Your task to perform on an android device: Open Wikipedia Image 0: 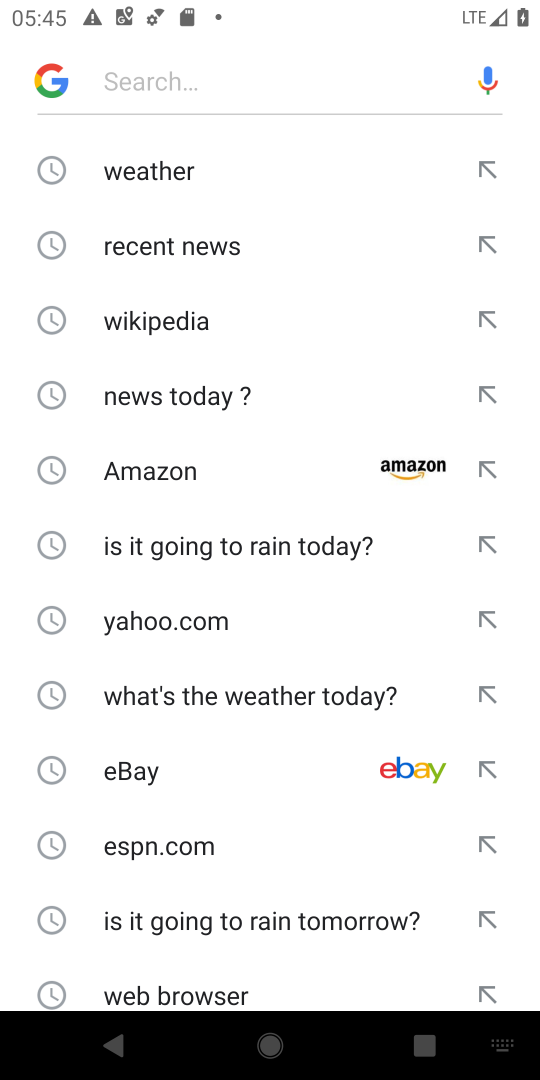
Step 0: press home button
Your task to perform on an android device: Open Wikipedia Image 1: 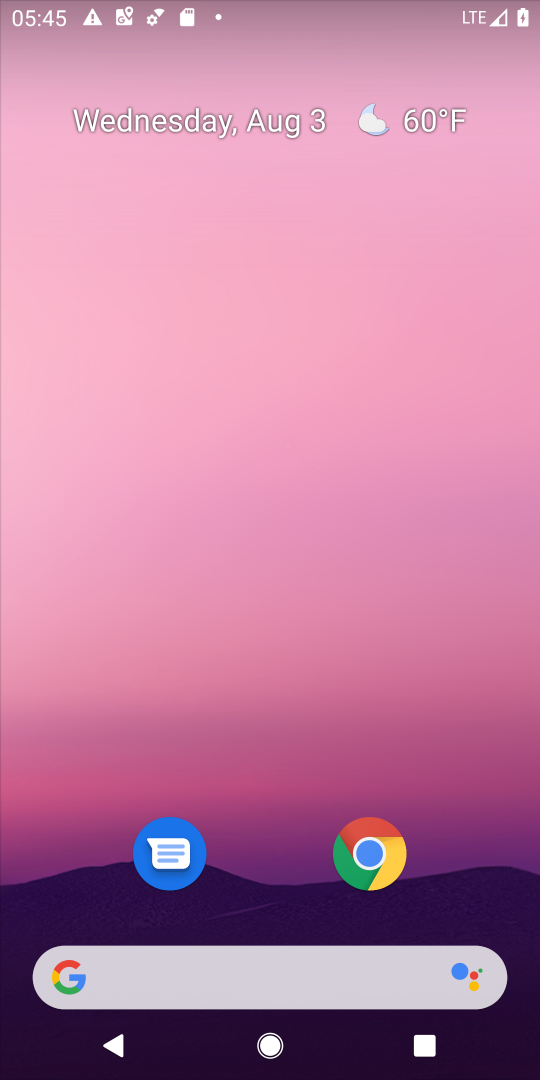
Step 1: click (368, 876)
Your task to perform on an android device: Open Wikipedia Image 2: 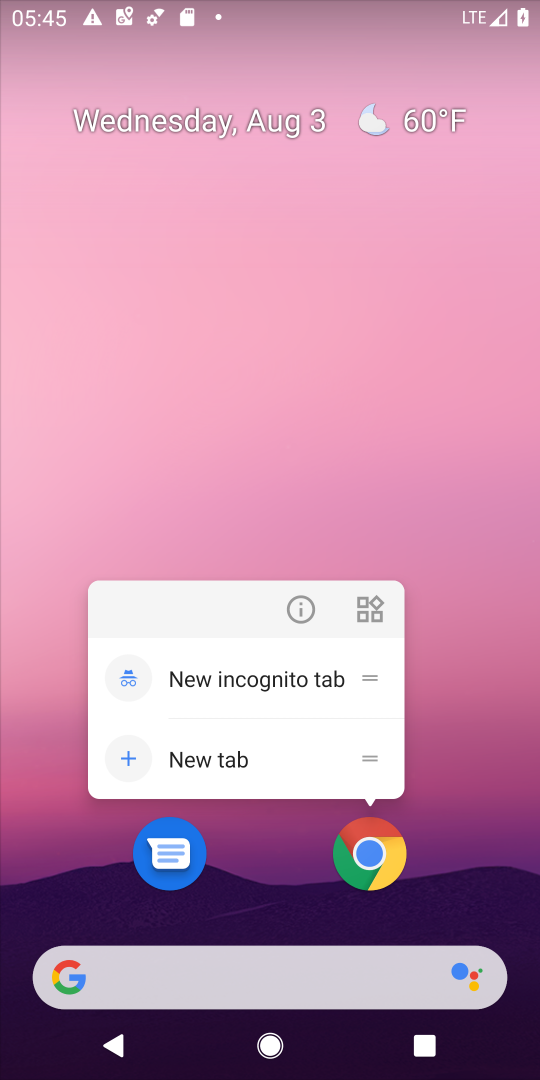
Step 2: click (363, 851)
Your task to perform on an android device: Open Wikipedia Image 3: 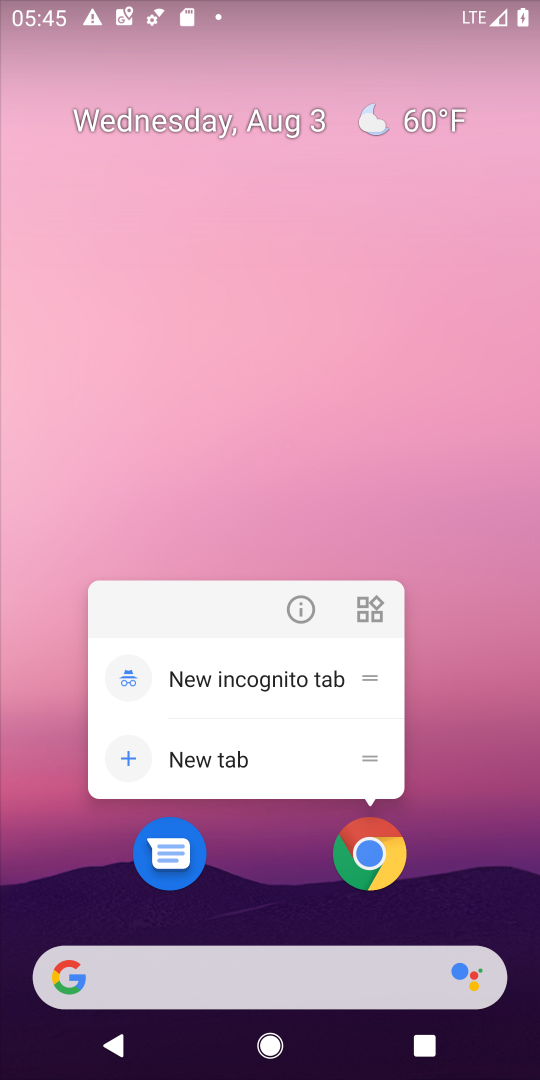
Step 3: click (362, 859)
Your task to perform on an android device: Open Wikipedia Image 4: 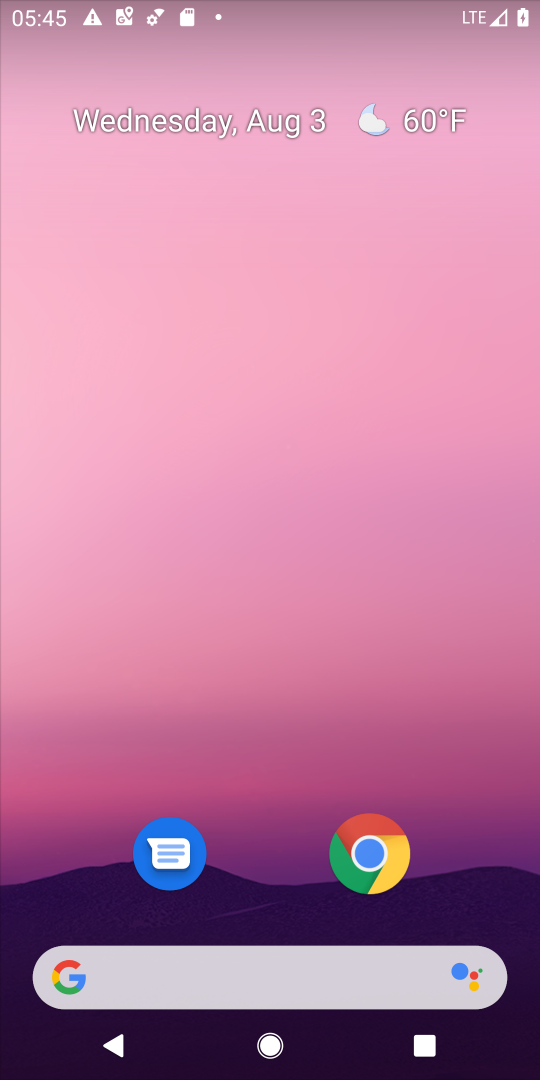
Step 4: click (362, 863)
Your task to perform on an android device: Open Wikipedia Image 5: 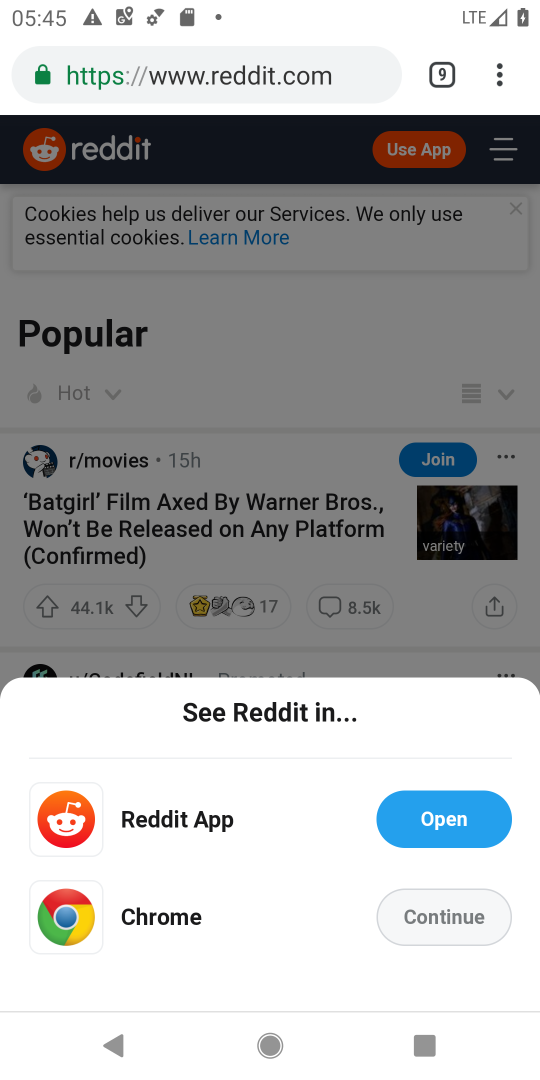
Step 5: click (500, 80)
Your task to perform on an android device: Open Wikipedia Image 6: 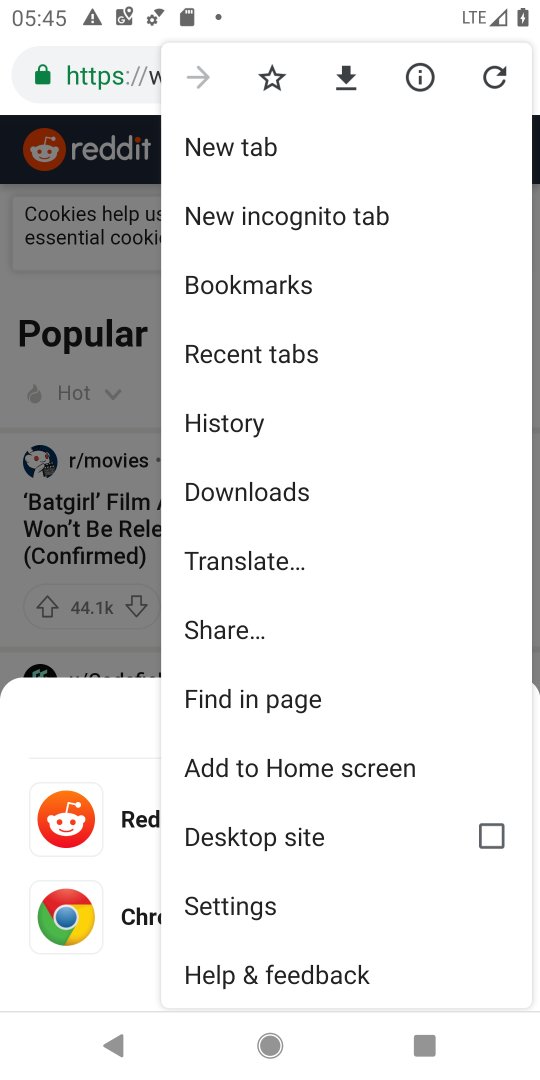
Step 6: click (234, 140)
Your task to perform on an android device: Open Wikipedia Image 7: 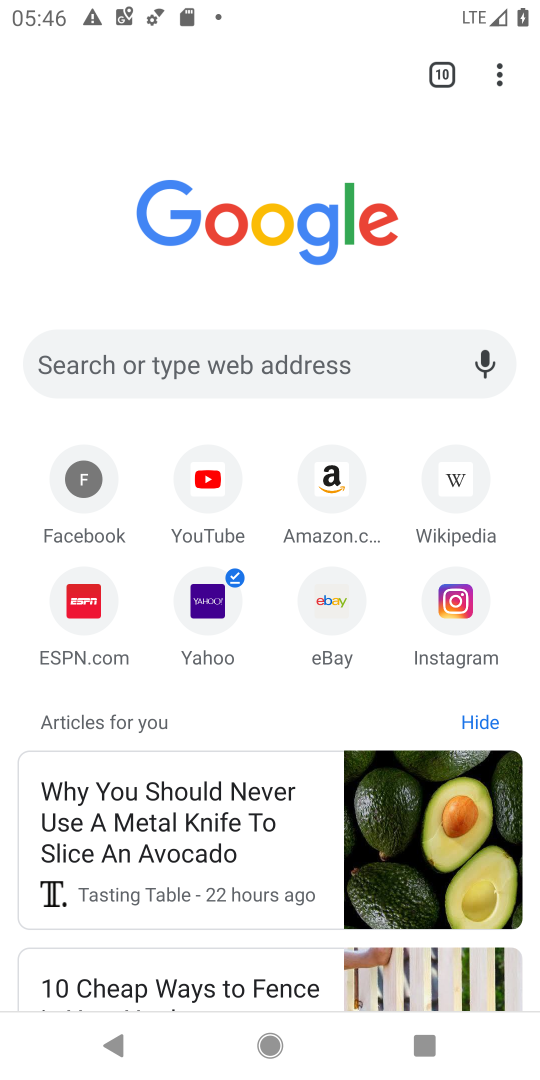
Step 7: click (446, 493)
Your task to perform on an android device: Open Wikipedia Image 8: 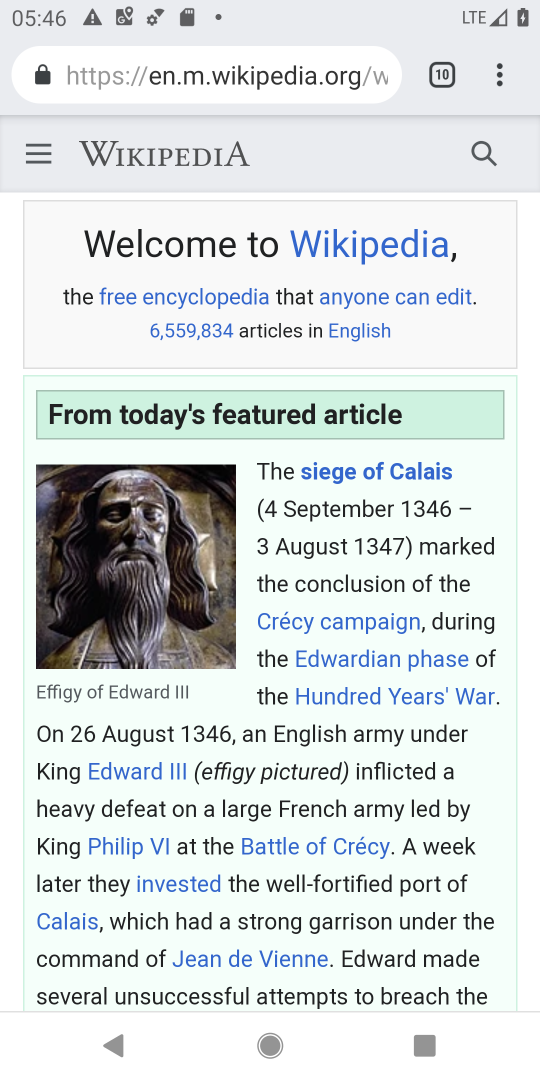
Step 8: task complete